Your task to perform on an android device: turn off smart reply in the gmail app Image 0: 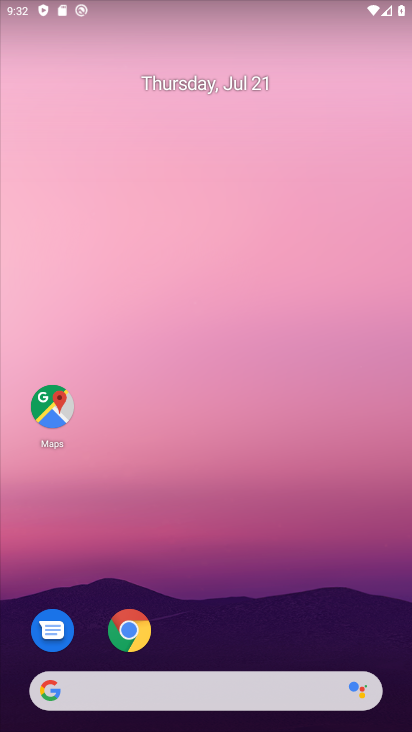
Step 0: drag from (311, 616) to (302, 10)
Your task to perform on an android device: turn off smart reply in the gmail app Image 1: 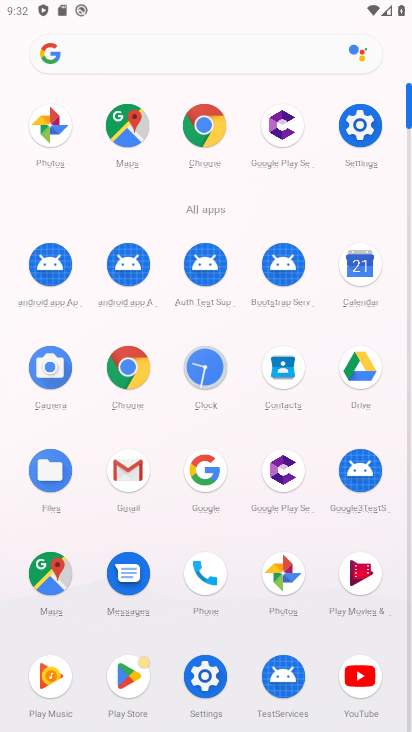
Step 1: click (129, 468)
Your task to perform on an android device: turn off smart reply in the gmail app Image 2: 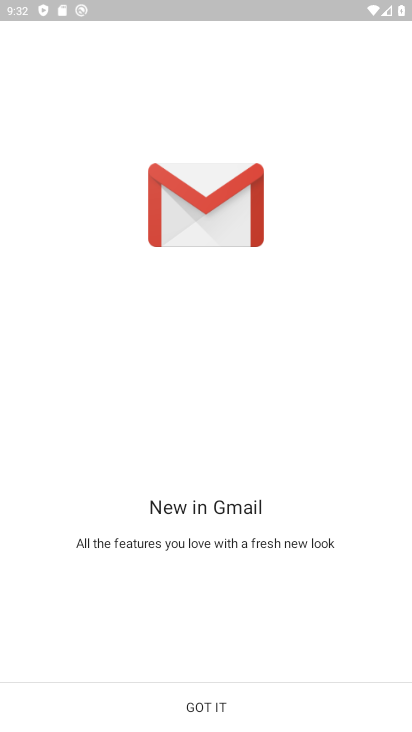
Step 2: click (296, 707)
Your task to perform on an android device: turn off smart reply in the gmail app Image 3: 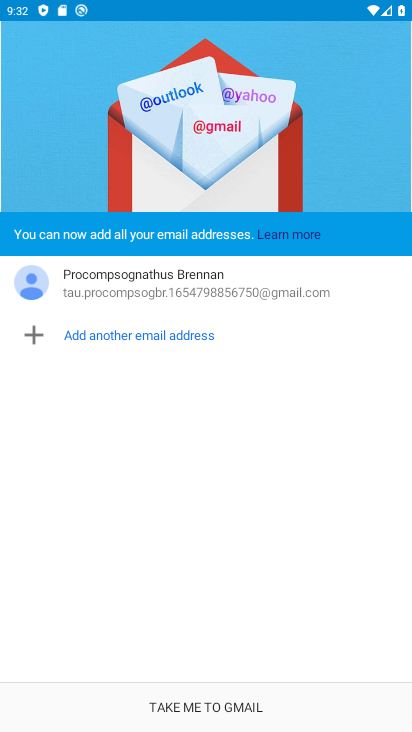
Step 3: click (296, 707)
Your task to perform on an android device: turn off smart reply in the gmail app Image 4: 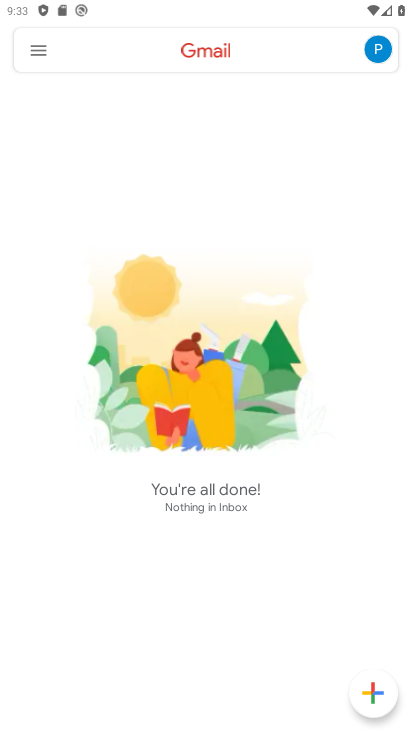
Step 4: click (35, 57)
Your task to perform on an android device: turn off smart reply in the gmail app Image 5: 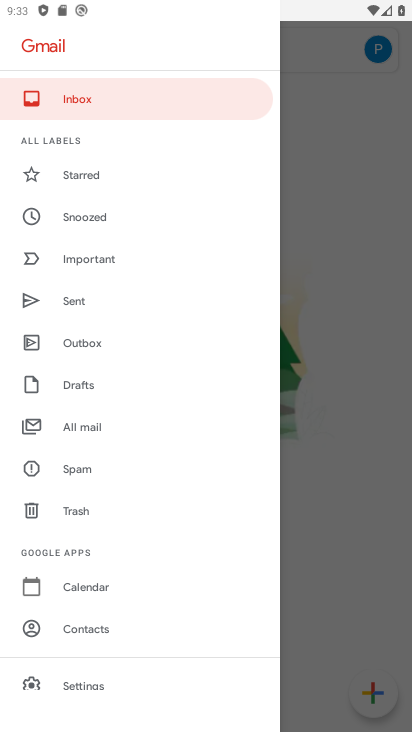
Step 5: drag from (114, 653) to (99, 279)
Your task to perform on an android device: turn off smart reply in the gmail app Image 6: 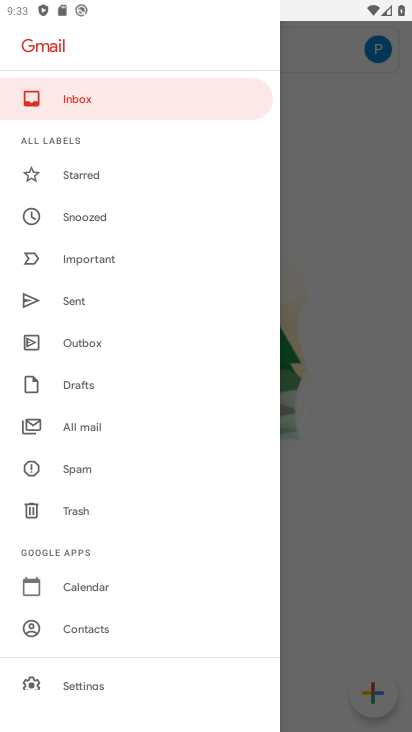
Step 6: drag from (101, 645) to (142, 191)
Your task to perform on an android device: turn off smart reply in the gmail app Image 7: 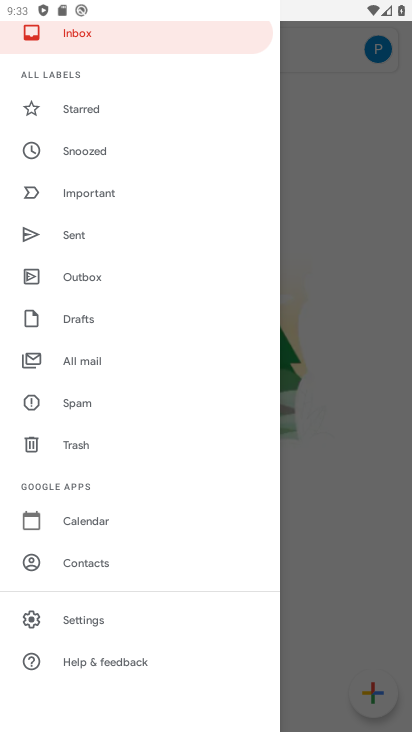
Step 7: click (114, 611)
Your task to perform on an android device: turn off smart reply in the gmail app Image 8: 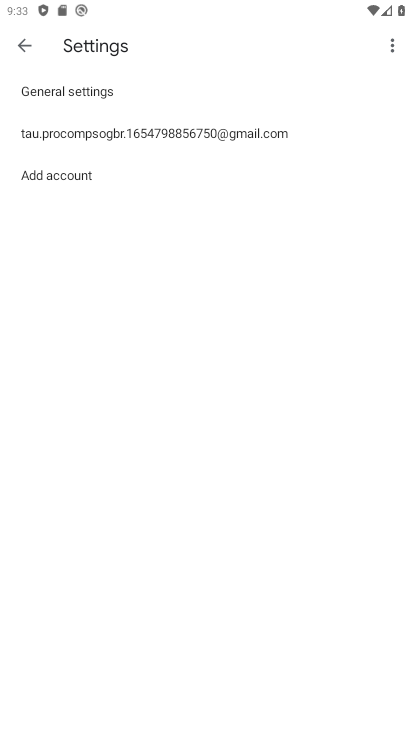
Step 8: click (220, 150)
Your task to perform on an android device: turn off smart reply in the gmail app Image 9: 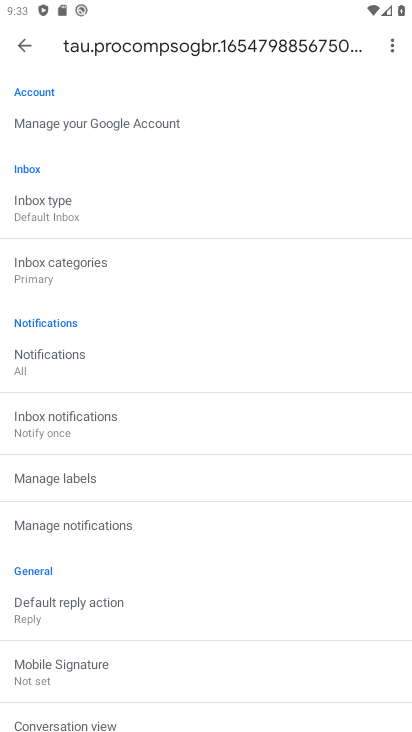
Step 9: drag from (121, 608) to (100, 174)
Your task to perform on an android device: turn off smart reply in the gmail app Image 10: 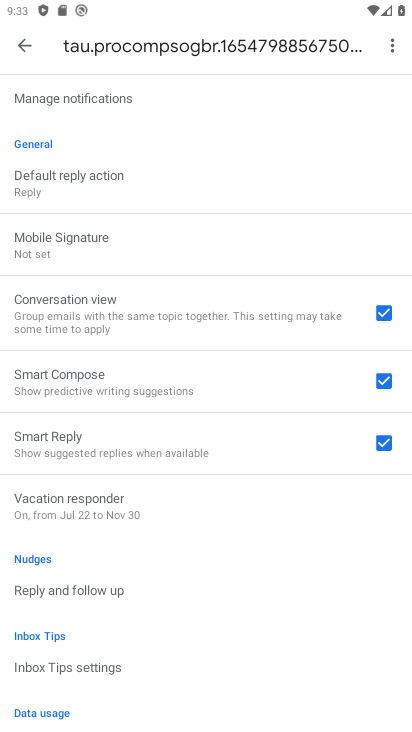
Step 10: click (377, 435)
Your task to perform on an android device: turn off smart reply in the gmail app Image 11: 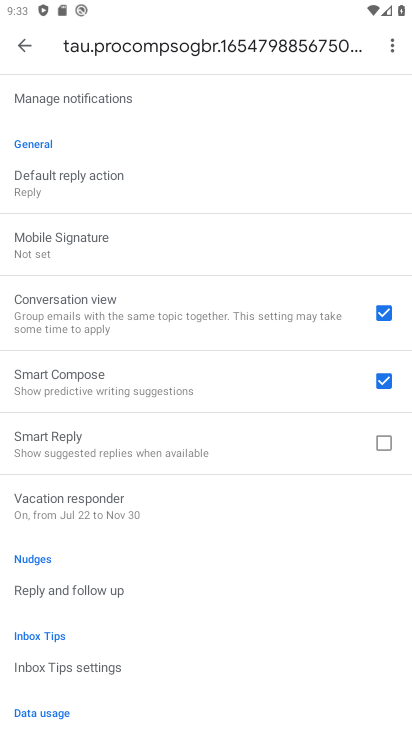
Step 11: task complete